Your task to perform on an android device: Go to Google maps Image 0: 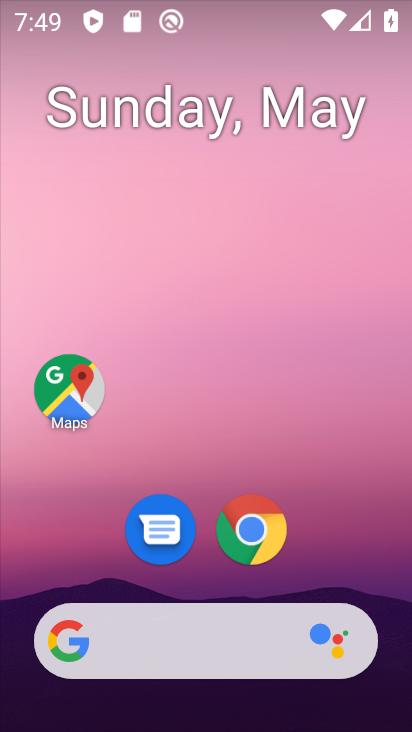
Step 0: drag from (382, 581) to (330, 129)
Your task to perform on an android device: Go to Google maps Image 1: 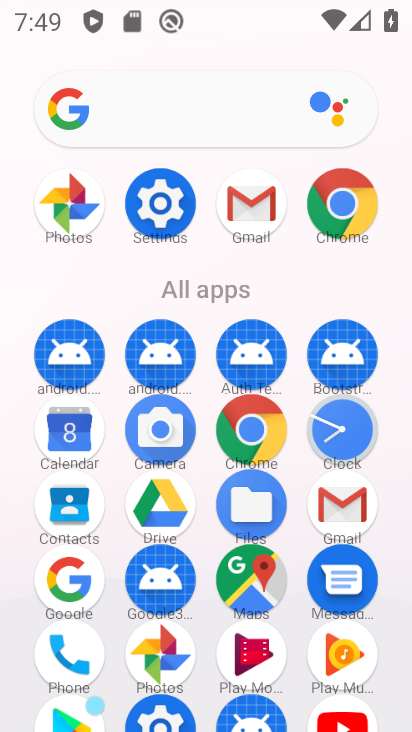
Step 1: click (257, 588)
Your task to perform on an android device: Go to Google maps Image 2: 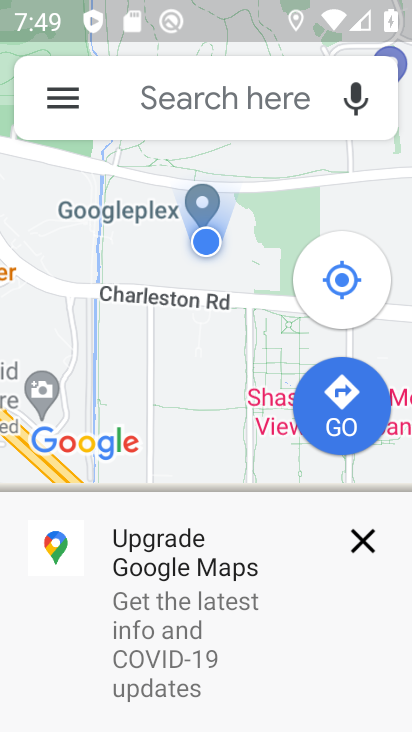
Step 2: click (366, 540)
Your task to perform on an android device: Go to Google maps Image 3: 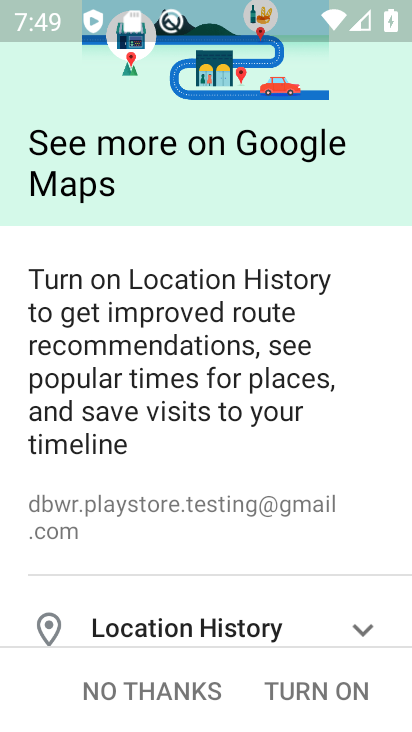
Step 3: task complete